Your task to perform on an android device: open app "Messages" (install if not already installed) Image 0: 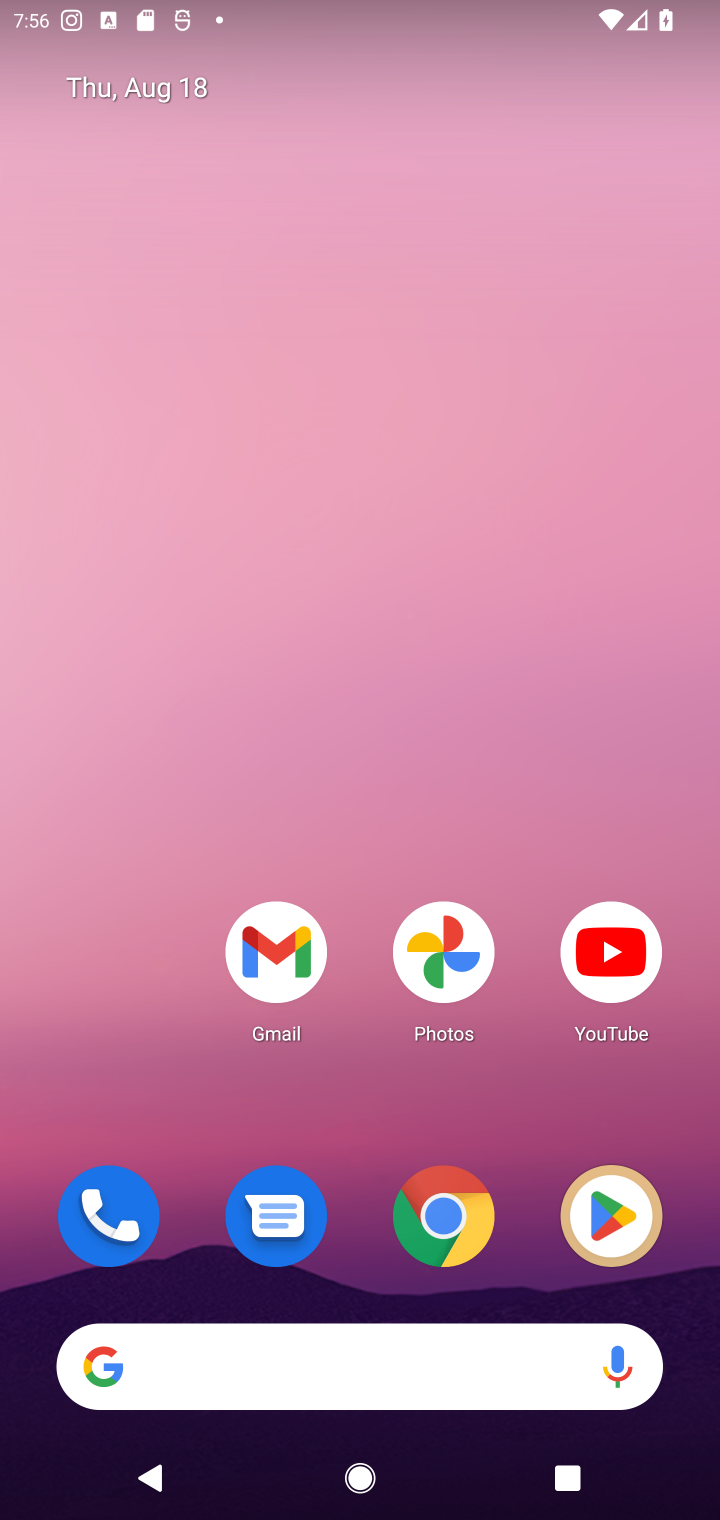
Step 0: click (622, 1187)
Your task to perform on an android device: open app "Messages" (install if not already installed) Image 1: 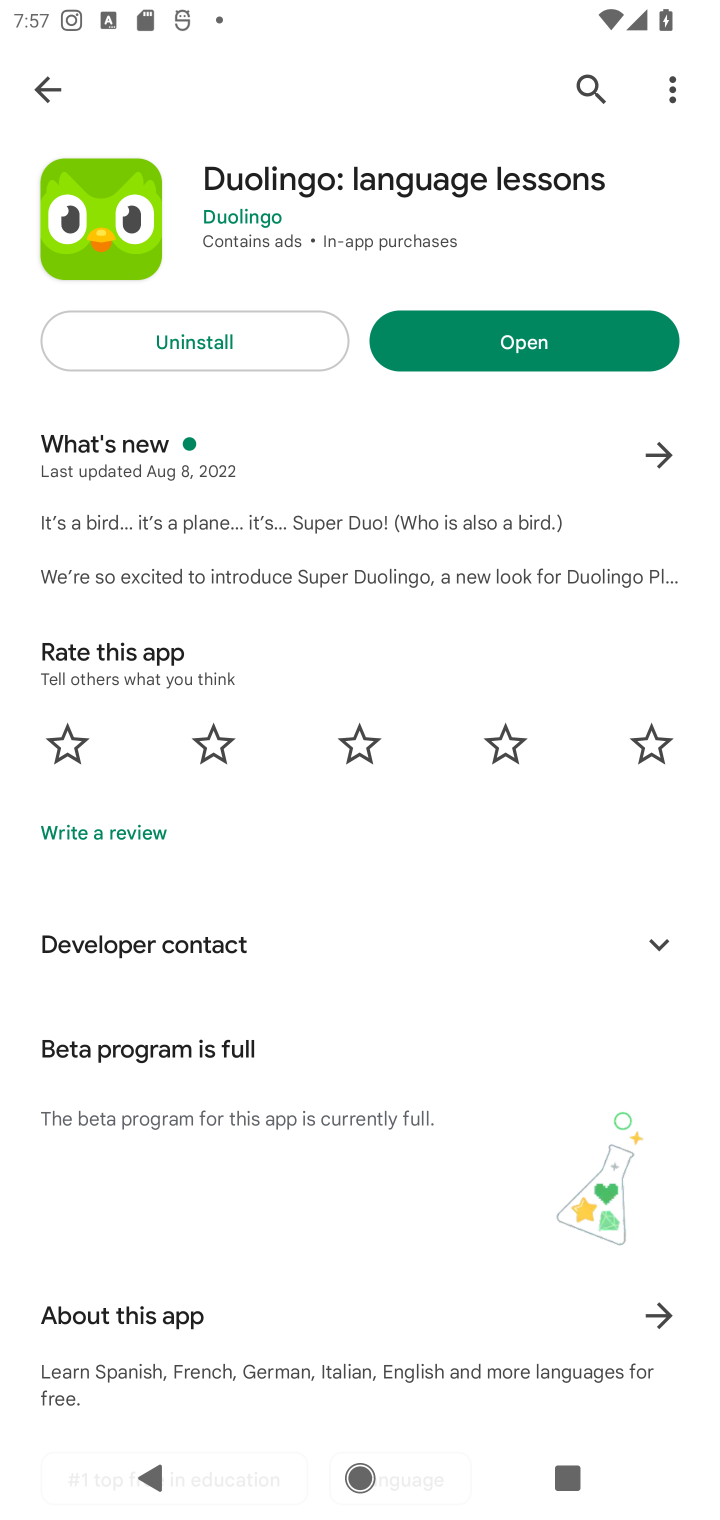
Step 1: click (575, 80)
Your task to perform on an android device: open app "Messages" (install if not already installed) Image 2: 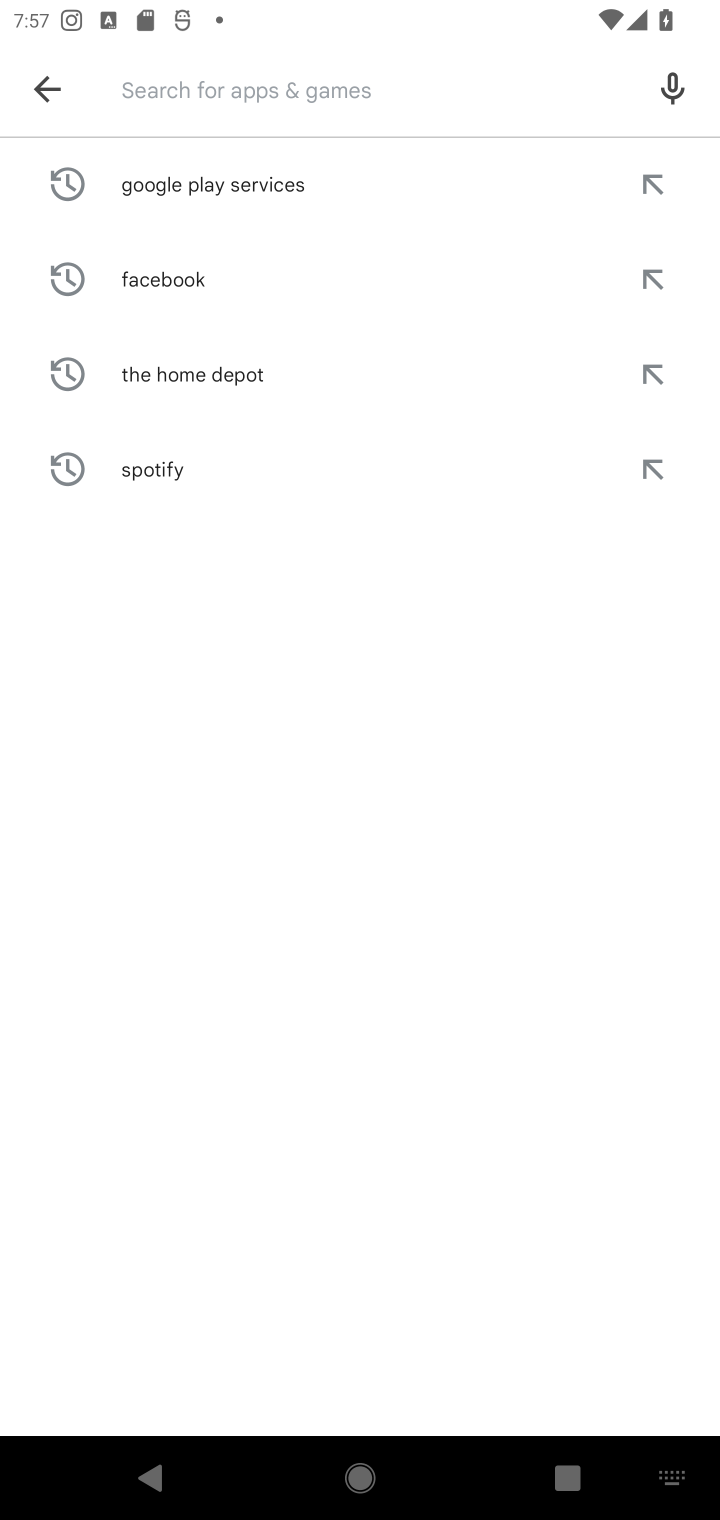
Step 2: type "Messages"
Your task to perform on an android device: open app "Messages" (install if not already installed) Image 3: 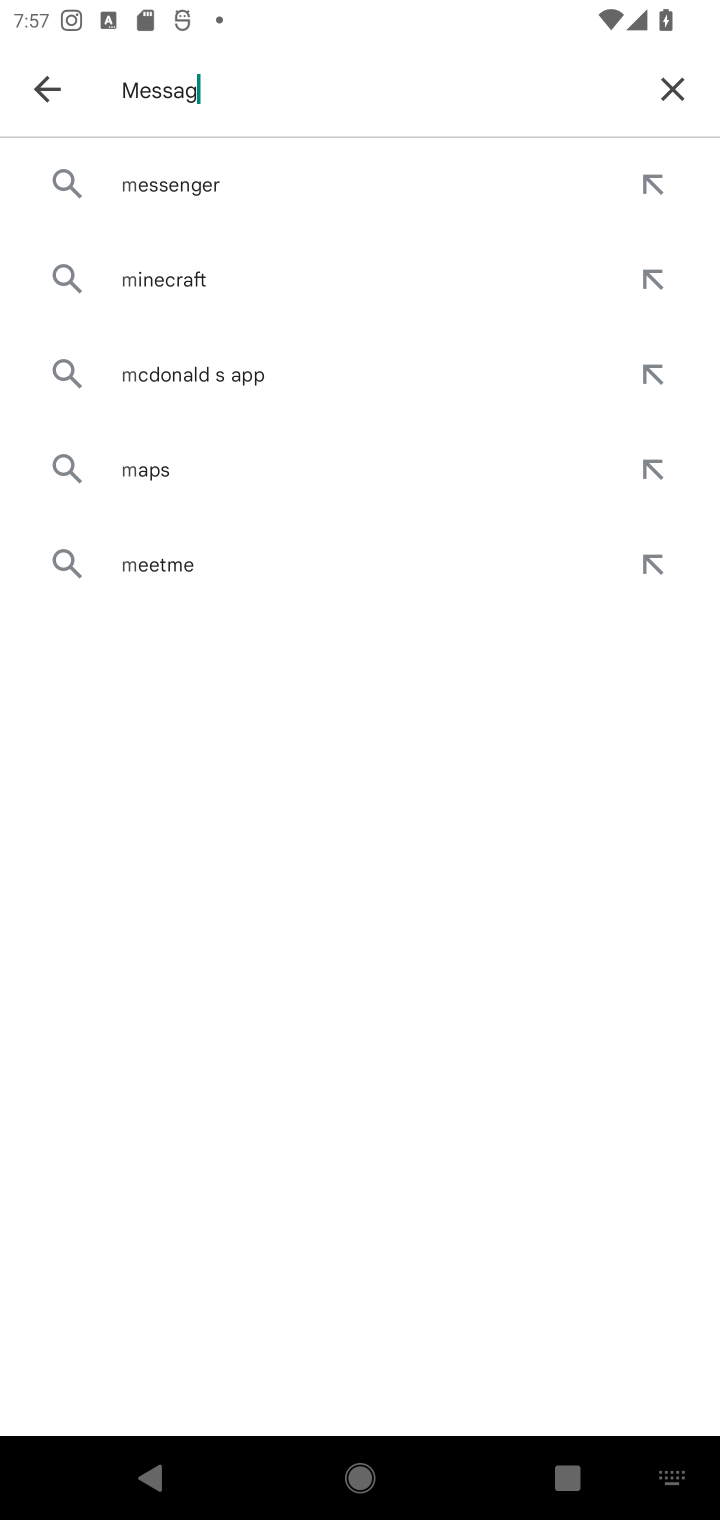
Step 3: type ""
Your task to perform on an android device: open app "Messages" (install if not already installed) Image 4: 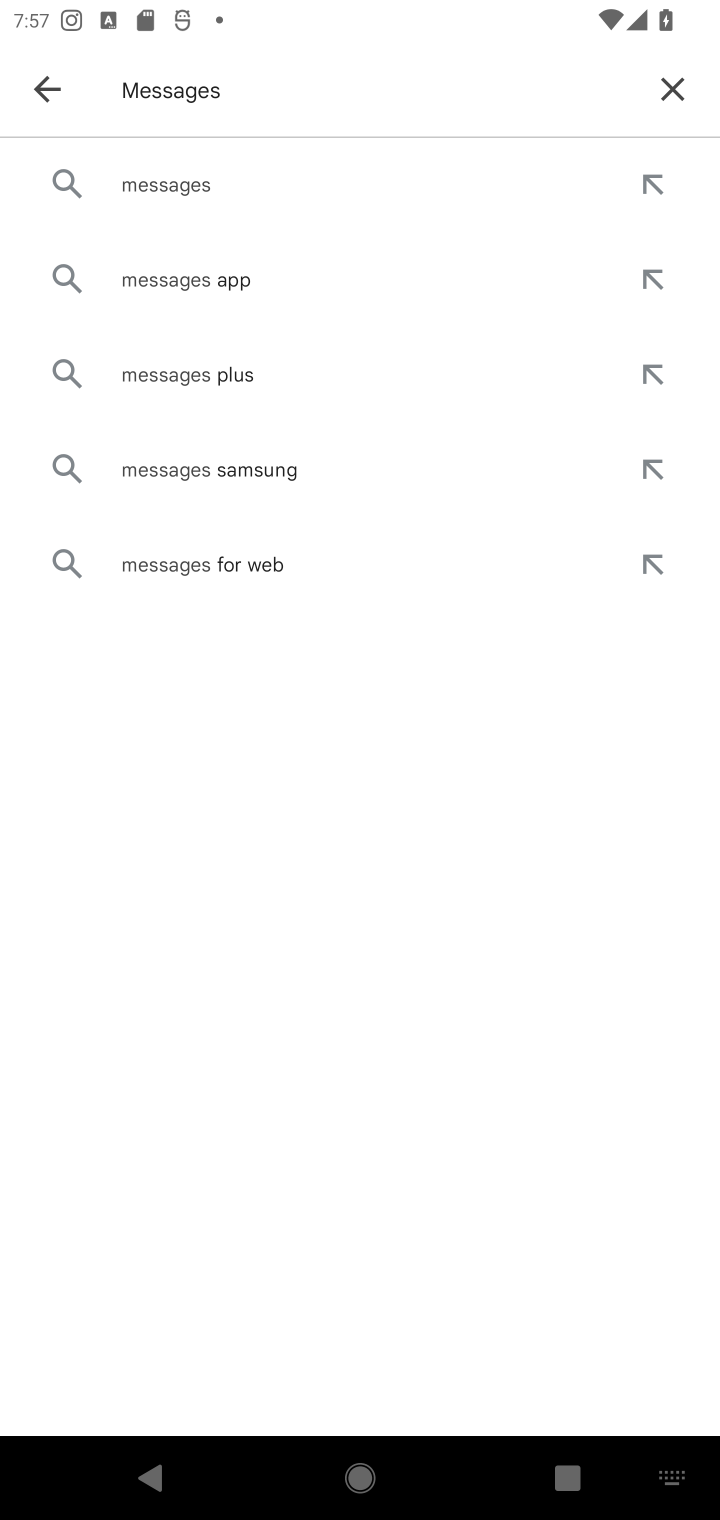
Step 4: click (272, 181)
Your task to perform on an android device: open app "Messages" (install if not already installed) Image 5: 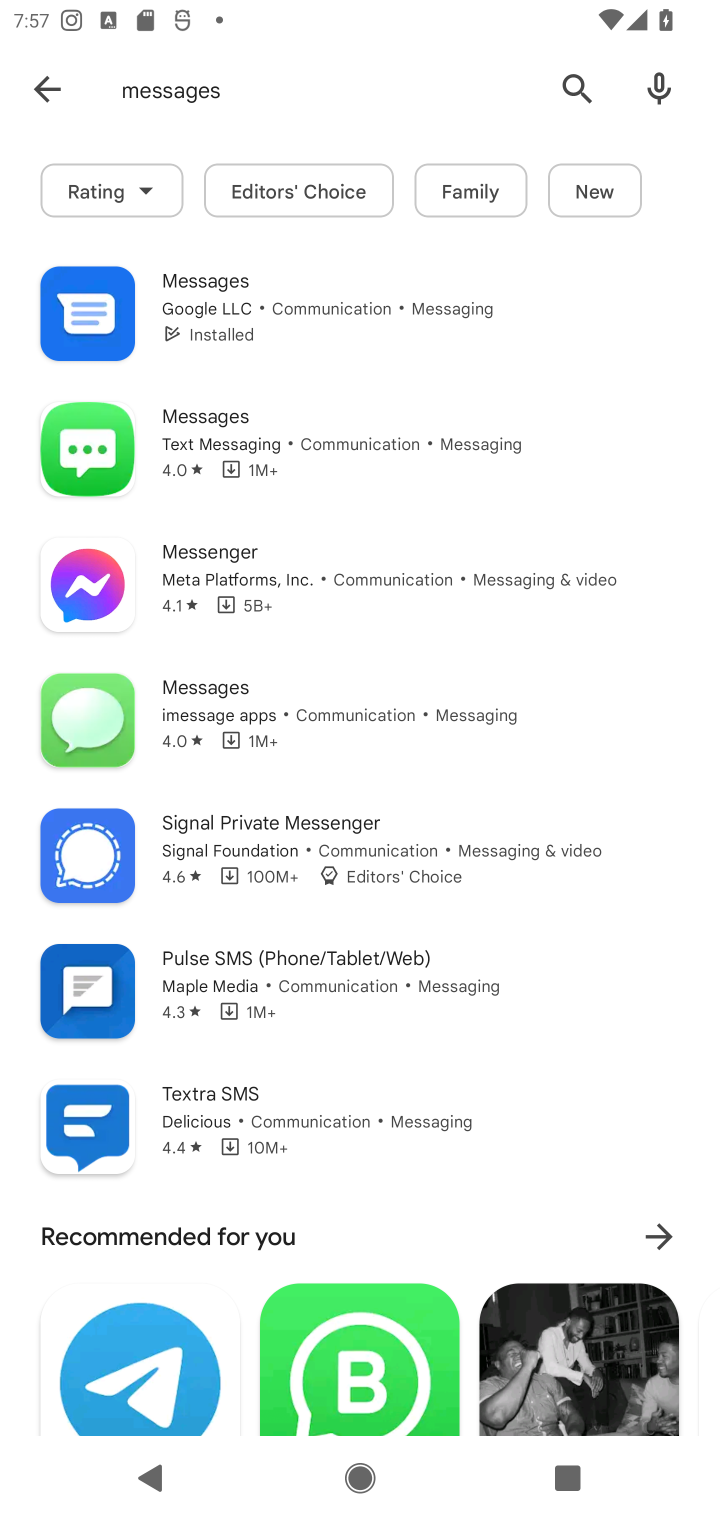
Step 5: click (232, 316)
Your task to perform on an android device: open app "Messages" (install if not already installed) Image 6: 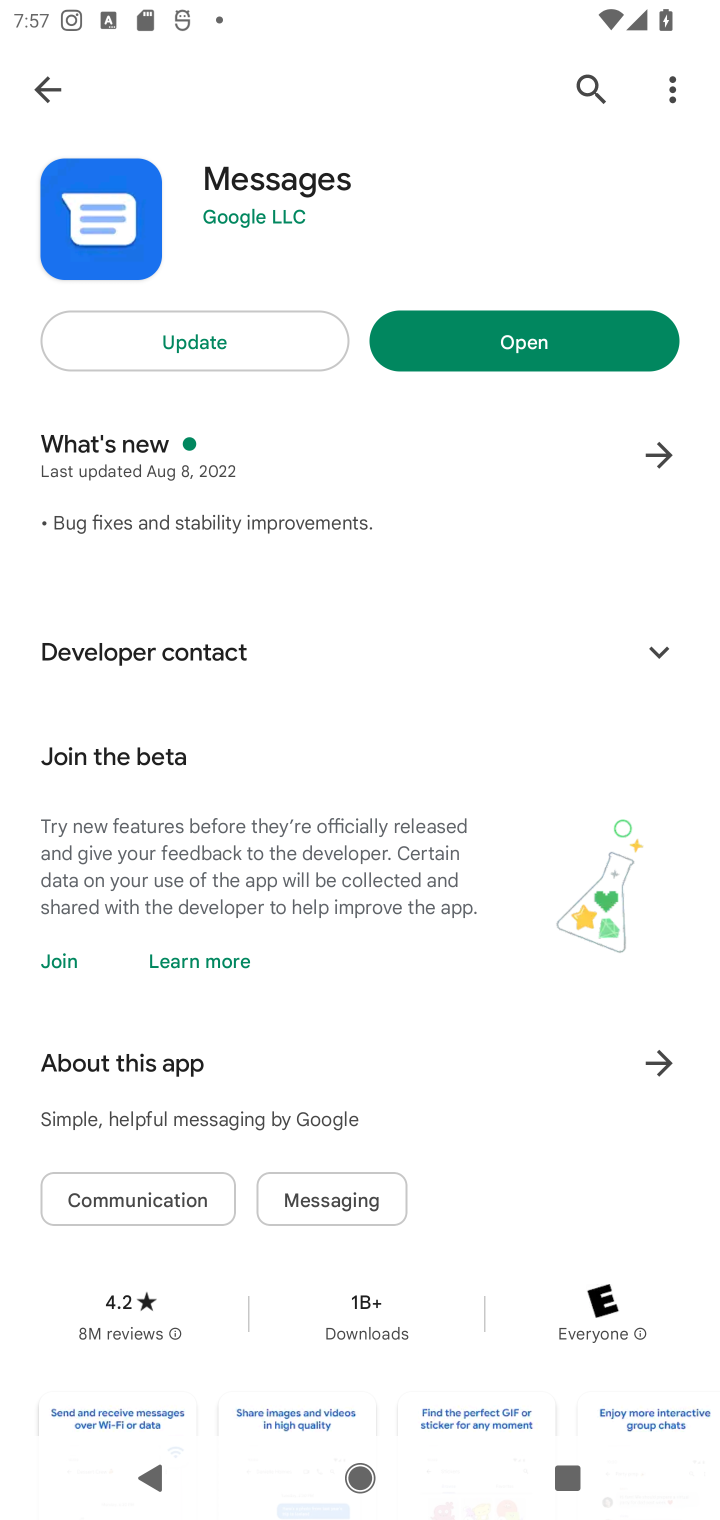
Step 6: click (589, 346)
Your task to perform on an android device: open app "Messages" (install if not already installed) Image 7: 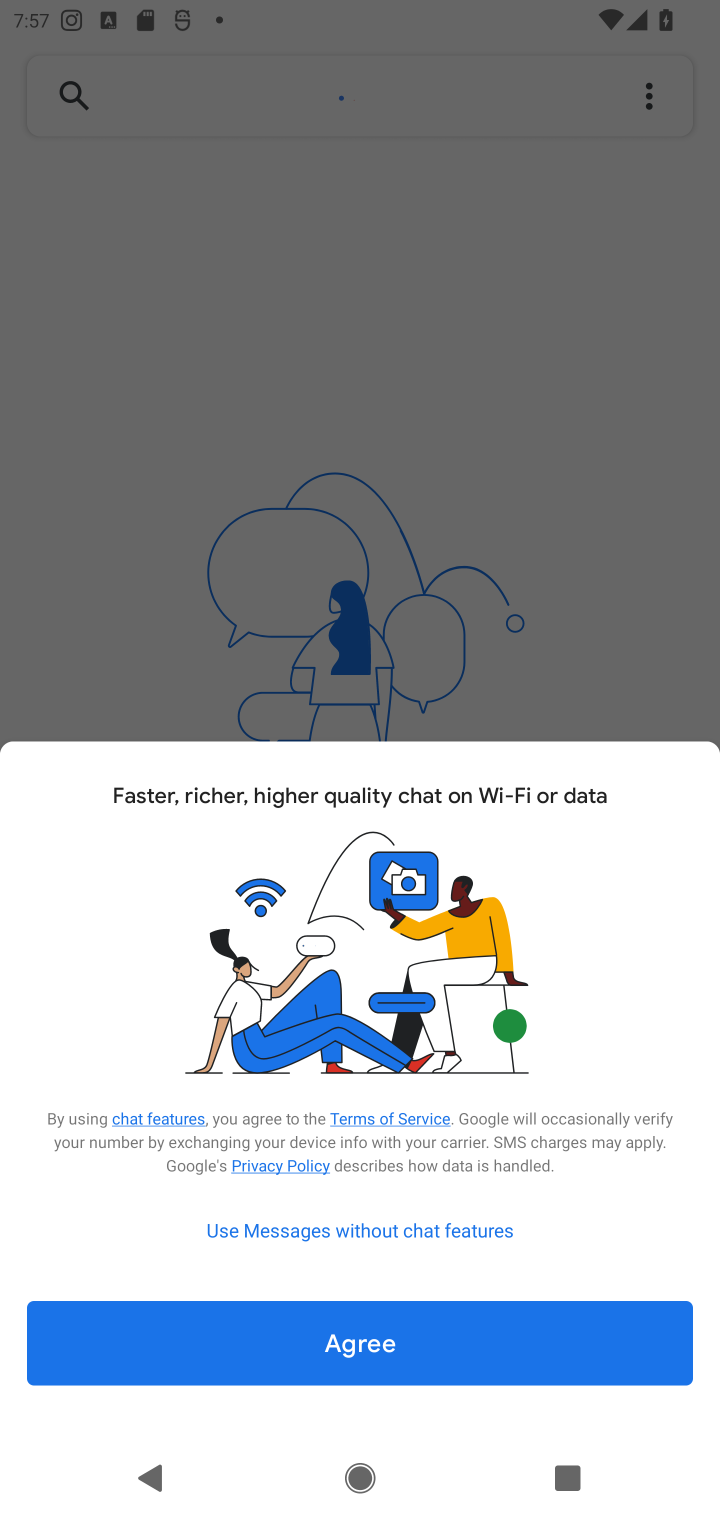
Step 7: task complete